Your task to perform on an android device: Open wifi settings Image 0: 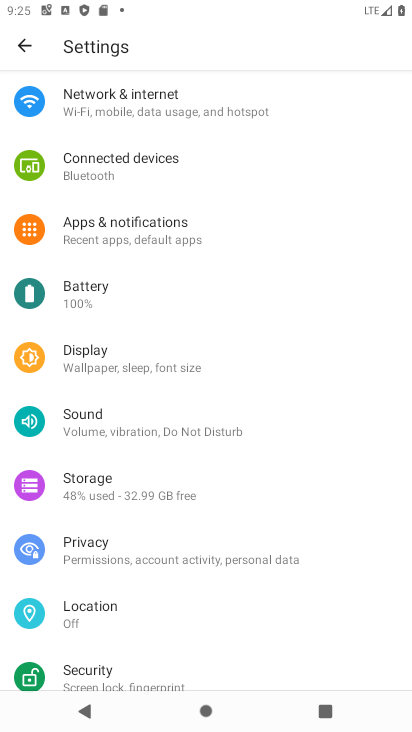
Step 0: drag from (189, 273) to (222, 730)
Your task to perform on an android device: Open wifi settings Image 1: 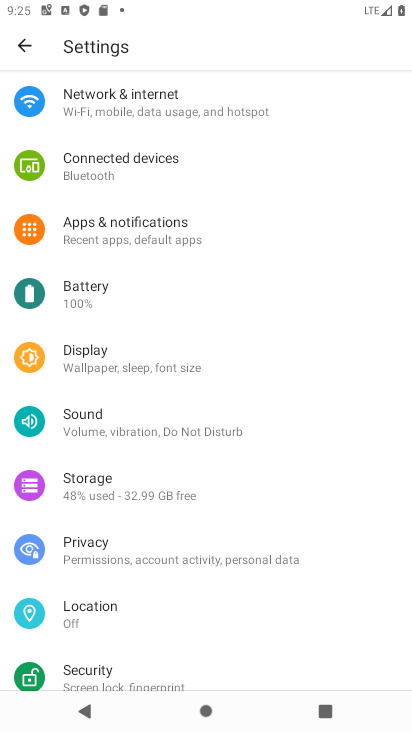
Step 1: click (132, 93)
Your task to perform on an android device: Open wifi settings Image 2: 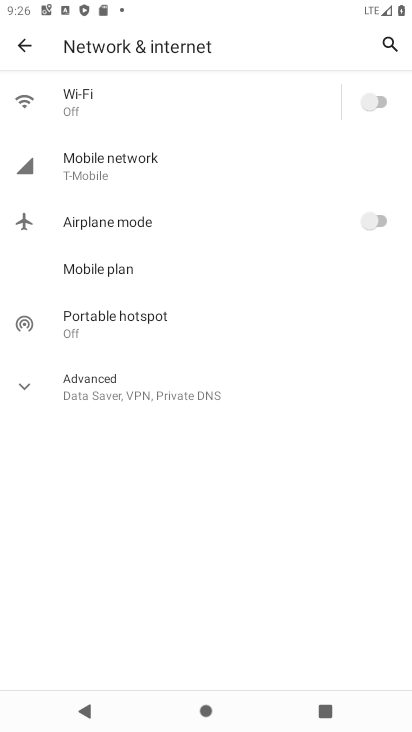
Step 2: click (89, 118)
Your task to perform on an android device: Open wifi settings Image 3: 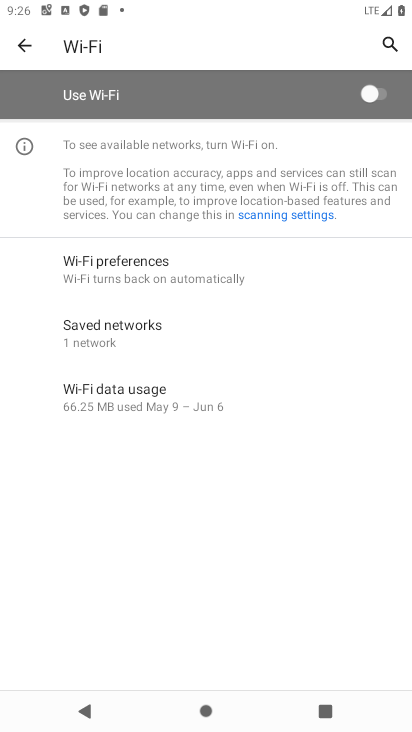
Step 3: task complete